Your task to perform on an android device: Check the weather Image 0: 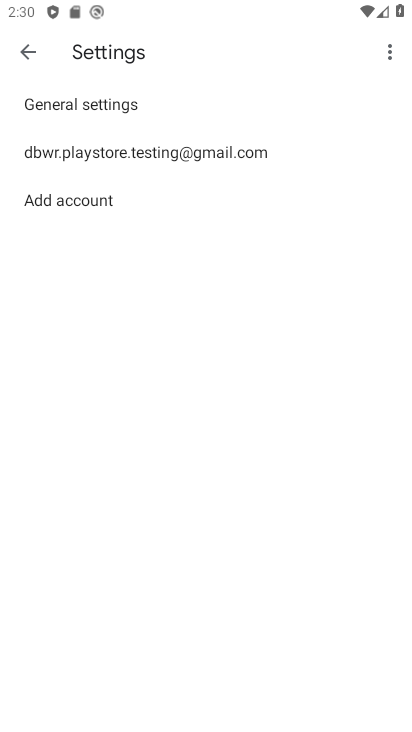
Step 0: press home button
Your task to perform on an android device: Check the weather Image 1: 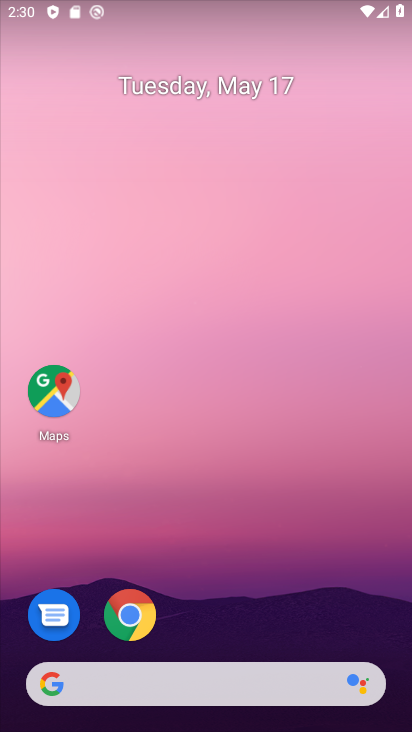
Step 1: drag from (222, 714) to (226, 236)
Your task to perform on an android device: Check the weather Image 2: 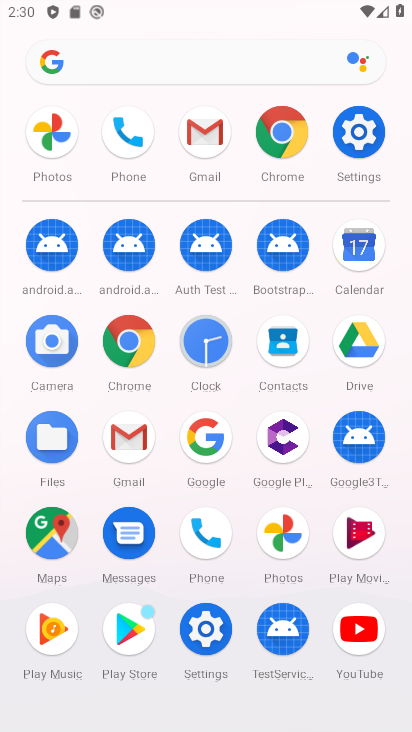
Step 2: click (208, 436)
Your task to perform on an android device: Check the weather Image 3: 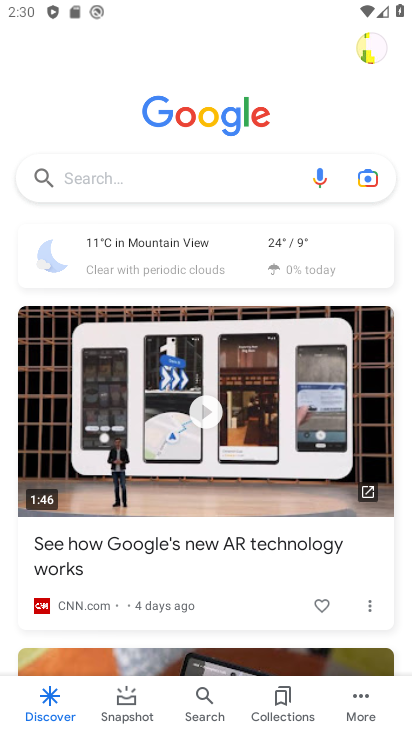
Step 3: click (145, 246)
Your task to perform on an android device: Check the weather Image 4: 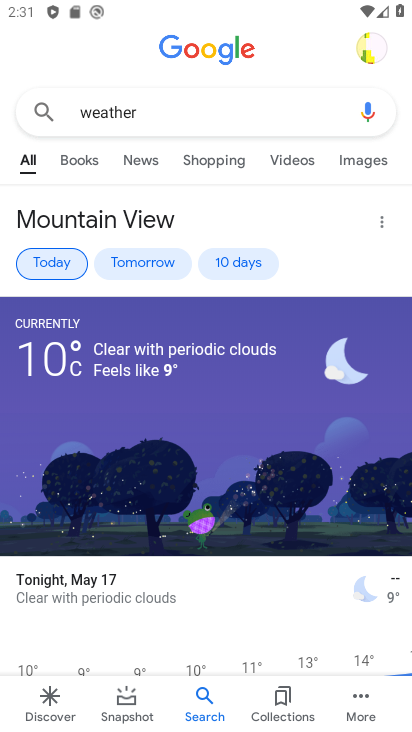
Step 4: task complete